Your task to perform on an android device: turn on data saver in the chrome app Image 0: 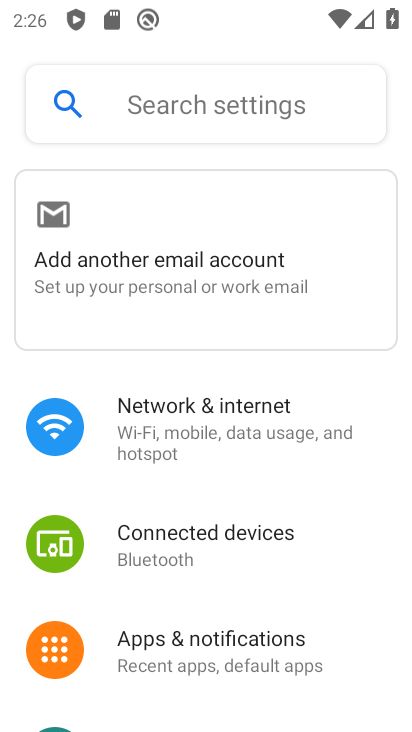
Step 0: press home button
Your task to perform on an android device: turn on data saver in the chrome app Image 1: 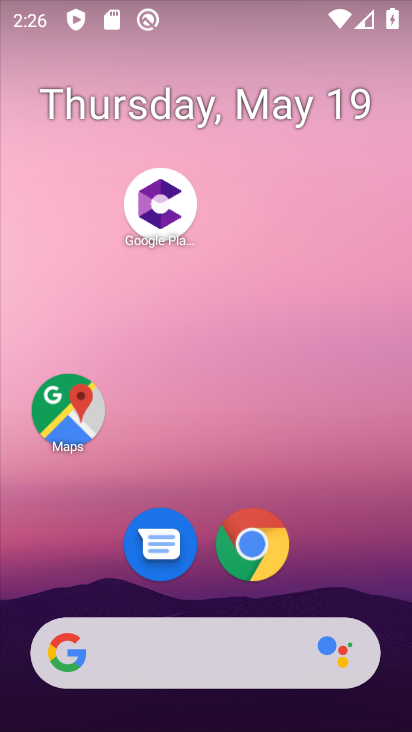
Step 1: drag from (302, 672) to (383, 206)
Your task to perform on an android device: turn on data saver in the chrome app Image 2: 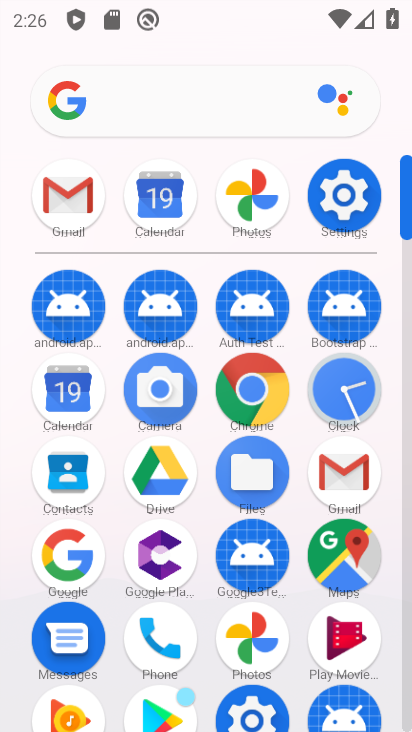
Step 2: click (230, 401)
Your task to perform on an android device: turn on data saver in the chrome app Image 3: 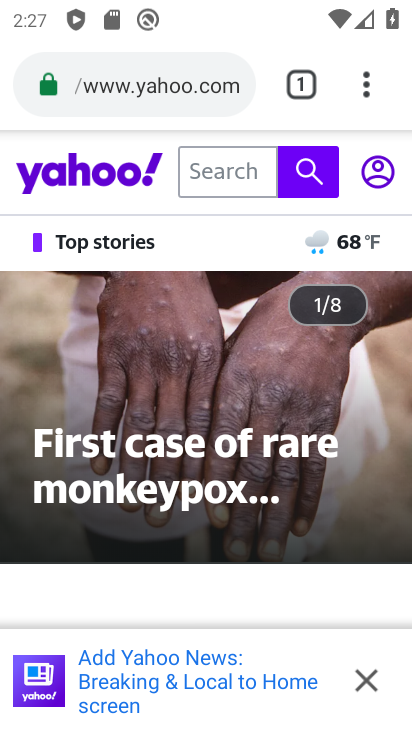
Step 3: click (367, 87)
Your task to perform on an android device: turn on data saver in the chrome app Image 4: 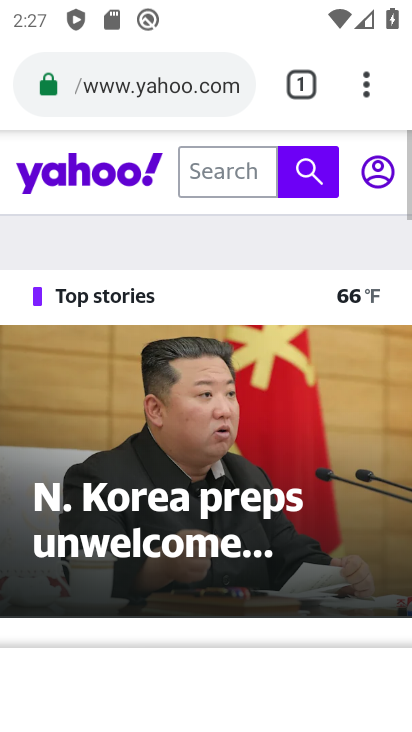
Step 4: click (360, 100)
Your task to perform on an android device: turn on data saver in the chrome app Image 5: 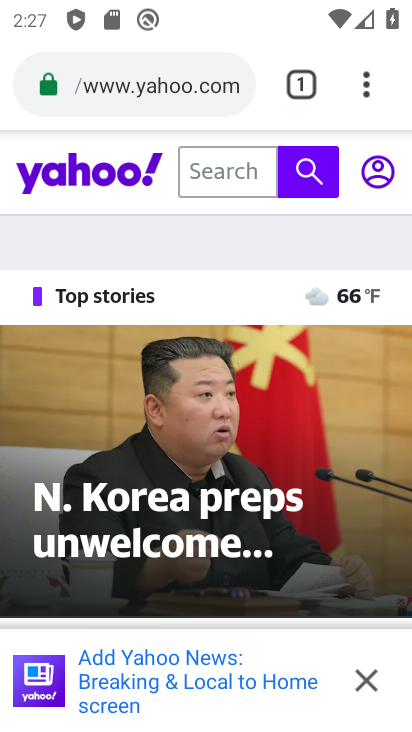
Step 5: click (360, 94)
Your task to perform on an android device: turn on data saver in the chrome app Image 6: 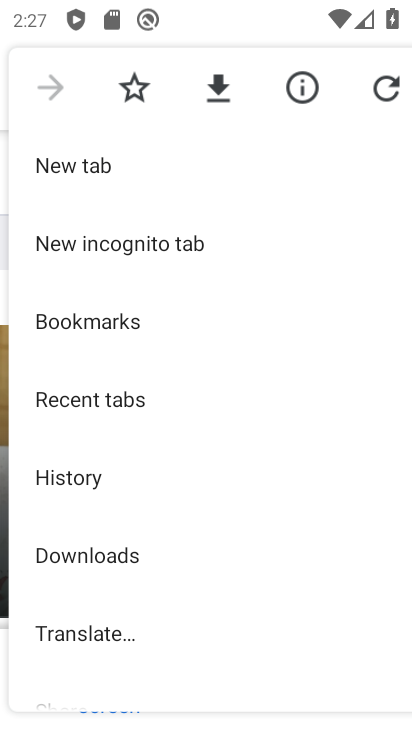
Step 6: drag from (80, 561) to (196, 315)
Your task to perform on an android device: turn on data saver in the chrome app Image 7: 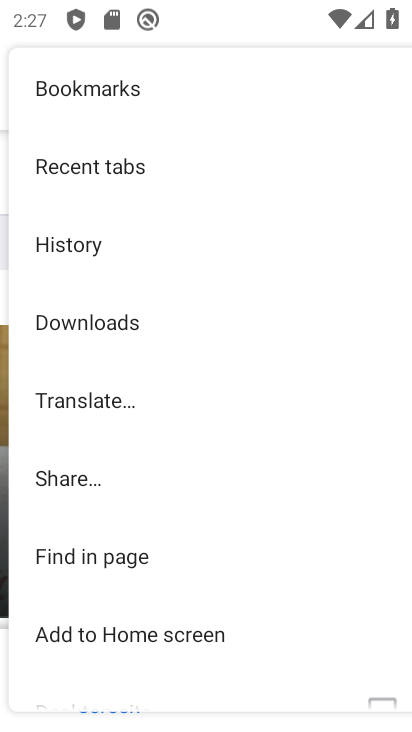
Step 7: drag from (197, 518) to (259, 266)
Your task to perform on an android device: turn on data saver in the chrome app Image 8: 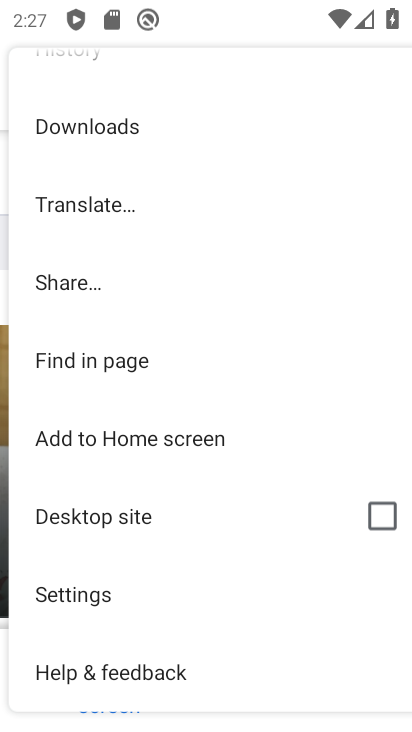
Step 8: click (85, 586)
Your task to perform on an android device: turn on data saver in the chrome app Image 9: 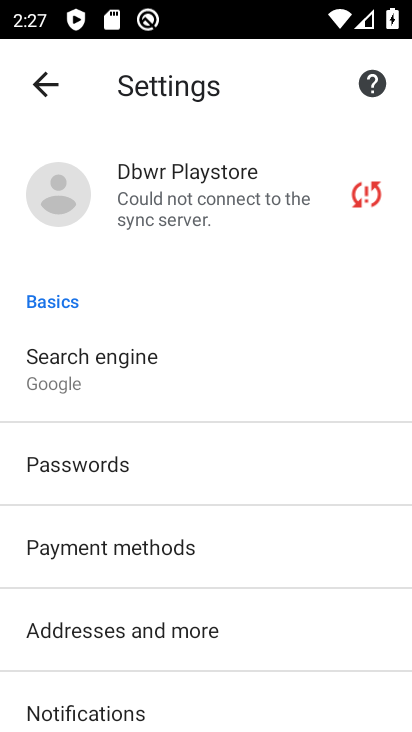
Step 9: drag from (180, 600) to (239, 292)
Your task to perform on an android device: turn on data saver in the chrome app Image 10: 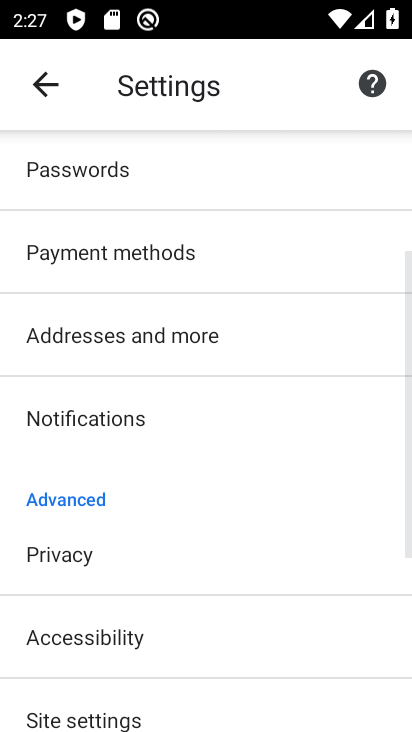
Step 10: drag from (156, 595) to (179, 418)
Your task to perform on an android device: turn on data saver in the chrome app Image 11: 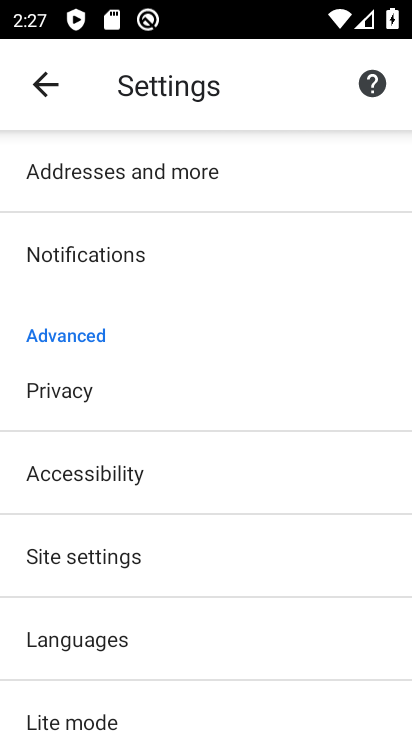
Step 11: drag from (72, 671) to (120, 573)
Your task to perform on an android device: turn on data saver in the chrome app Image 12: 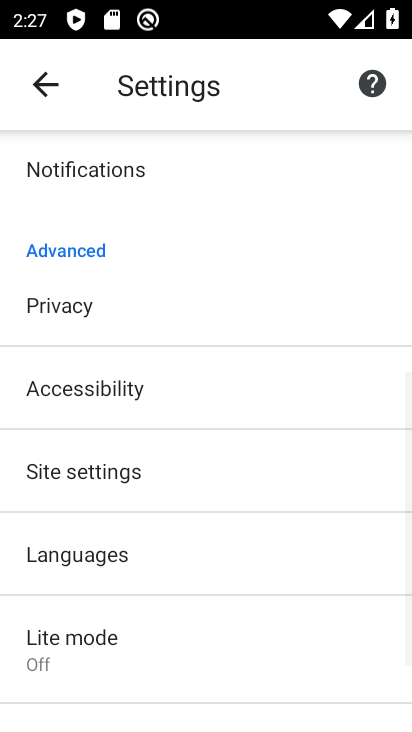
Step 12: click (79, 633)
Your task to perform on an android device: turn on data saver in the chrome app Image 13: 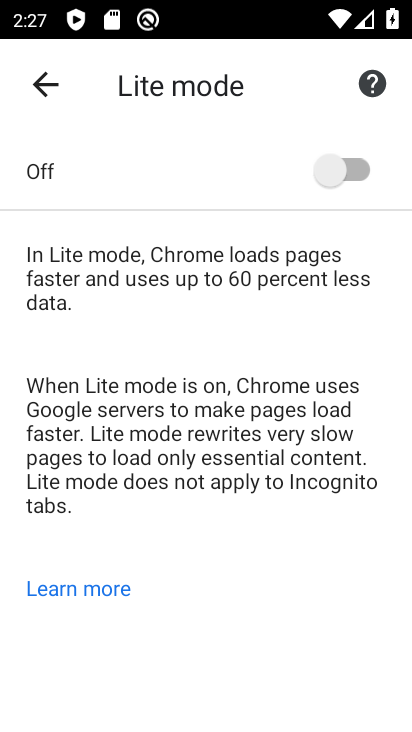
Step 13: click (353, 173)
Your task to perform on an android device: turn on data saver in the chrome app Image 14: 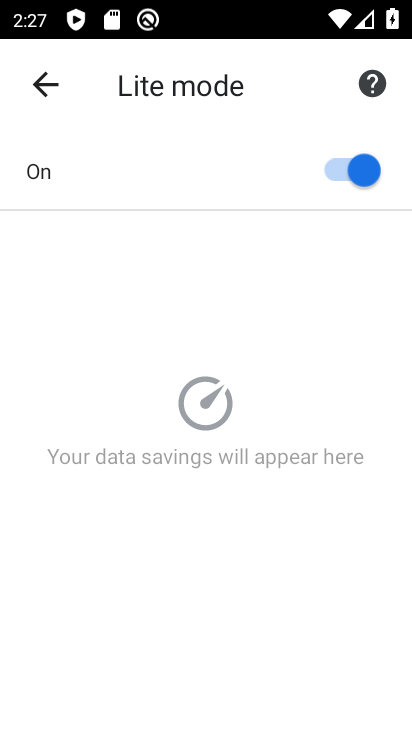
Step 14: task complete